Your task to perform on an android device: turn off notifications in google photos Image 0: 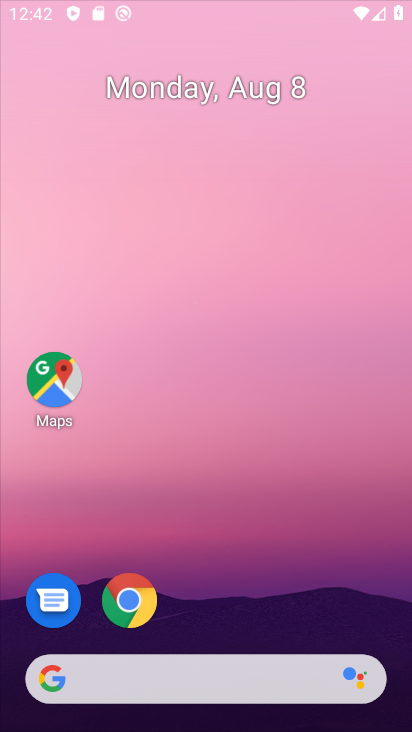
Step 0: press home button
Your task to perform on an android device: turn off notifications in google photos Image 1: 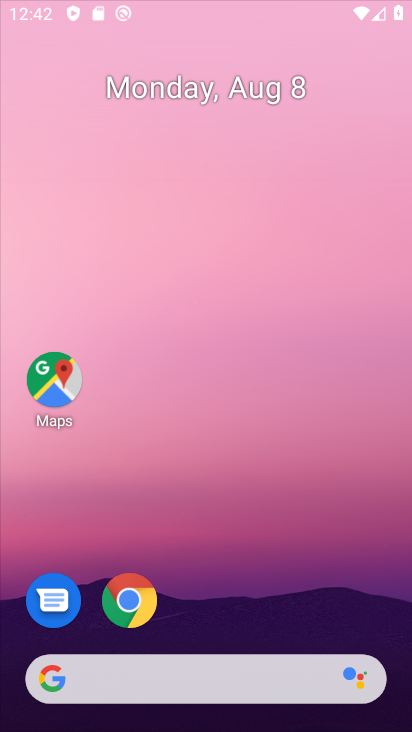
Step 1: click (340, 12)
Your task to perform on an android device: turn off notifications in google photos Image 2: 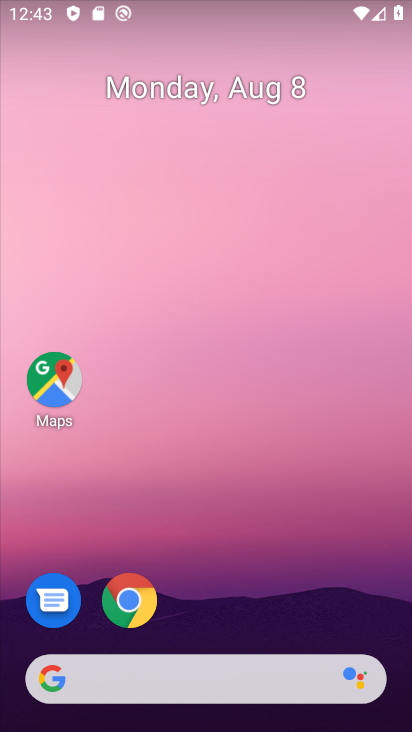
Step 2: drag from (217, 609) to (253, 97)
Your task to perform on an android device: turn off notifications in google photos Image 3: 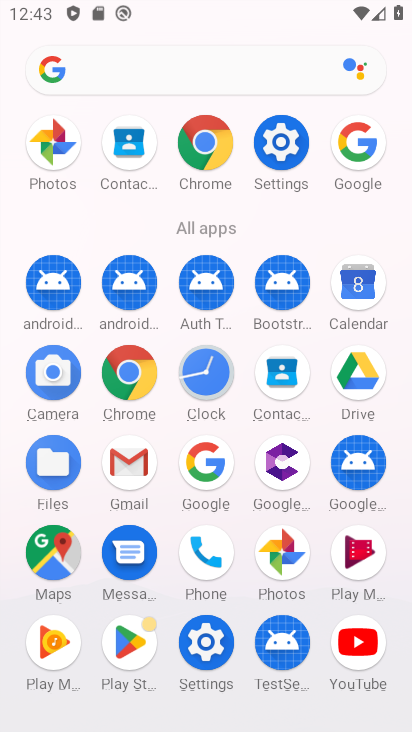
Step 3: click (284, 563)
Your task to perform on an android device: turn off notifications in google photos Image 4: 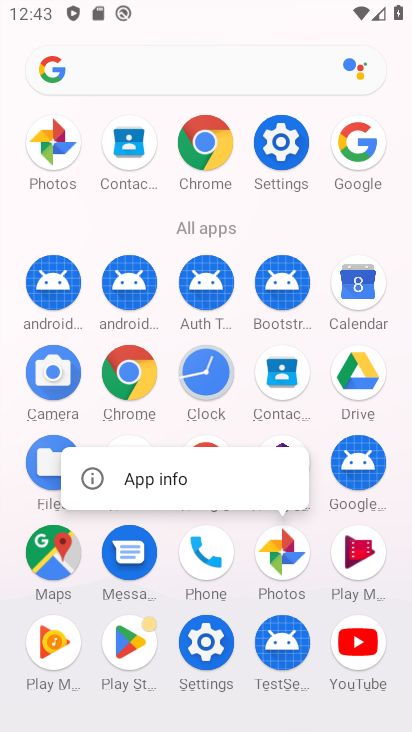
Step 4: click (253, 496)
Your task to perform on an android device: turn off notifications in google photos Image 5: 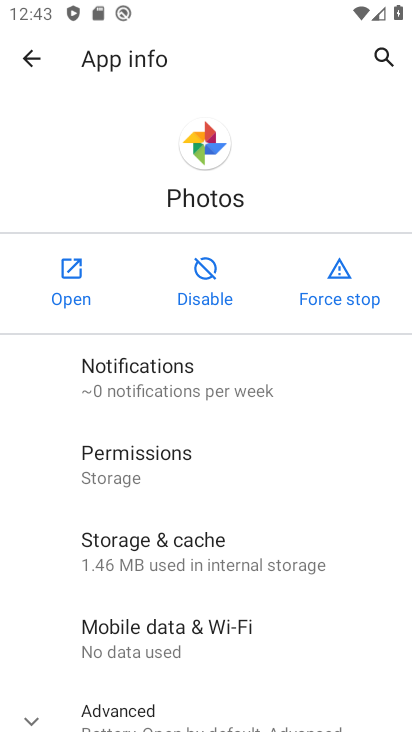
Step 5: click (174, 378)
Your task to perform on an android device: turn off notifications in google photos Image 6: 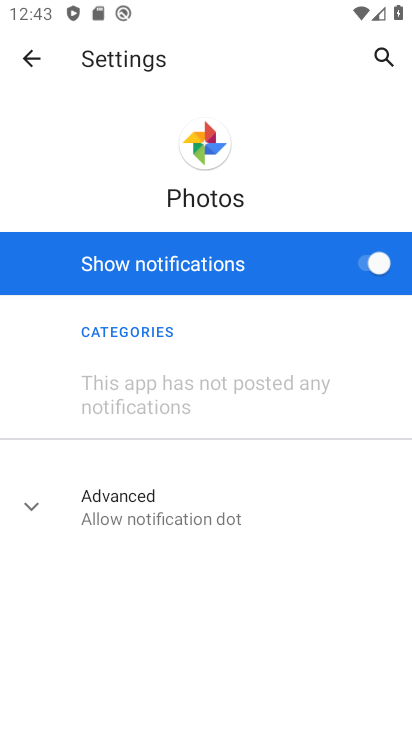
Step 6: click (207, 278)
Your task to perform on an android device: turn off notifications in google photos Image 7: 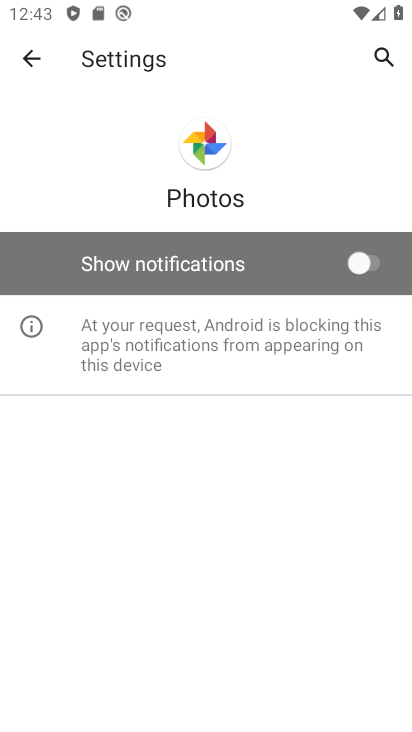
Step 7: task complete